Your task to perform on an android device: open app "ColorNote Notepad Notes" Image 0: 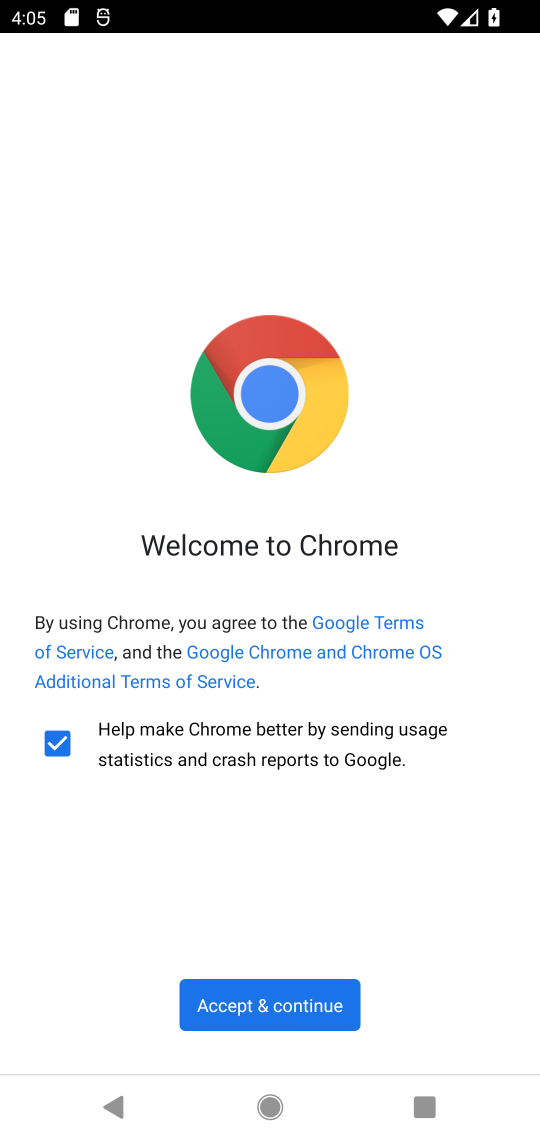
Step 0: press home button
Your task to perform on an android device: open app "ColorNote Notepad Notes" Image 1: 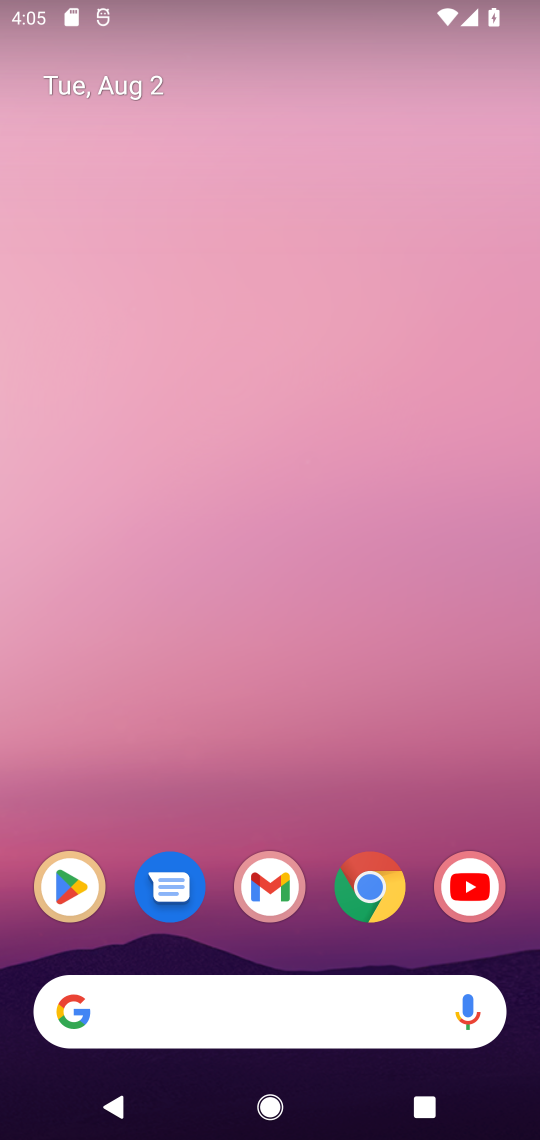
Step 1: click (68, 887)
Your task to perform on an android device: open app "ColorNote Notepad Notes" Image 2: 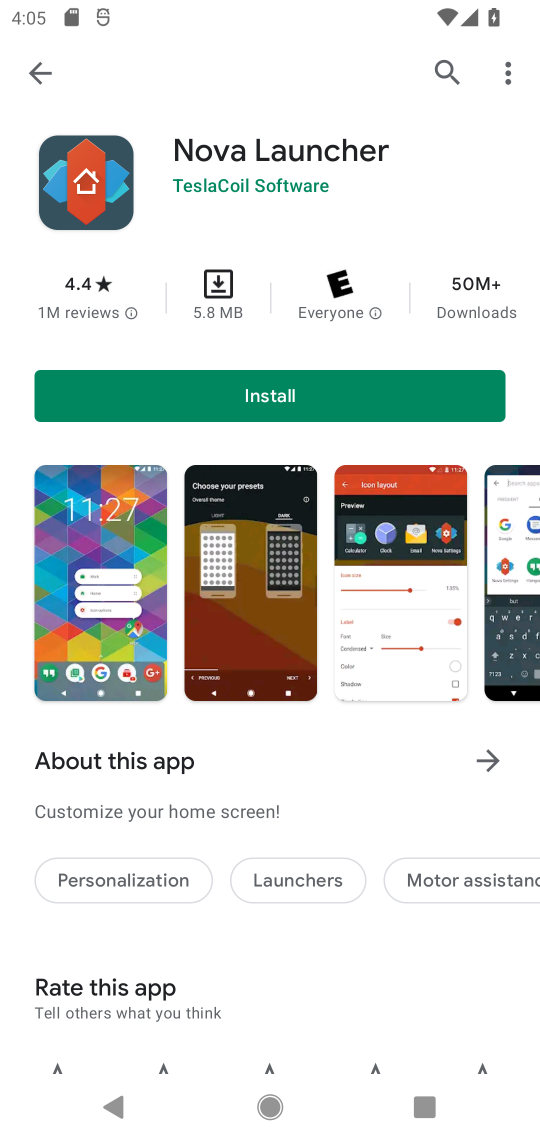
Step 2: click (29, 67)
Your task to perform on an android device: open app "ColorNote Notepad Notes" Image 3: 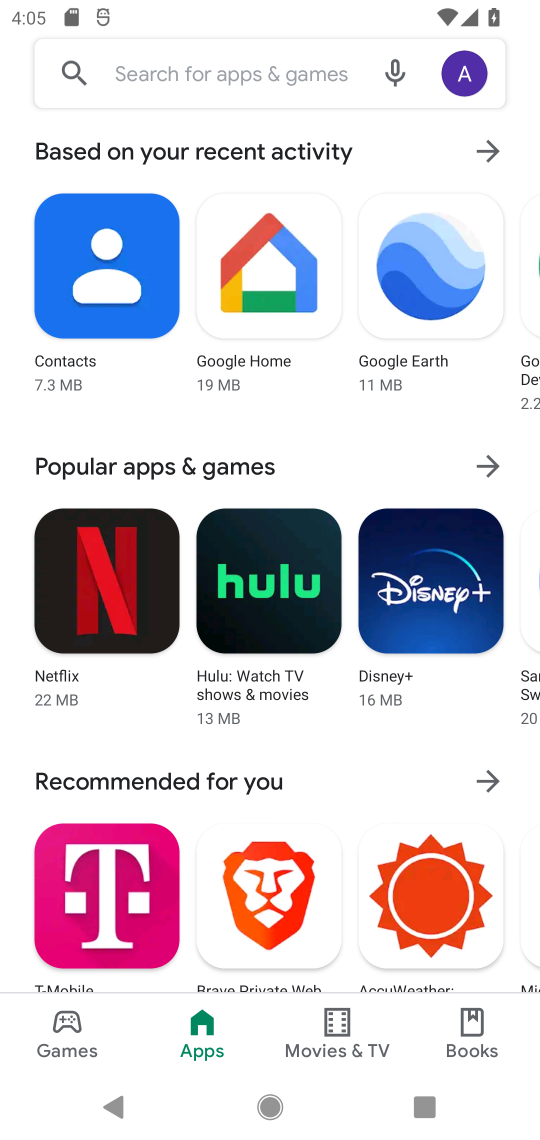
Step 3: click (111, 68)
Your task to perform on an android device: open app "ColorNote Notepad Notes" Image 4: 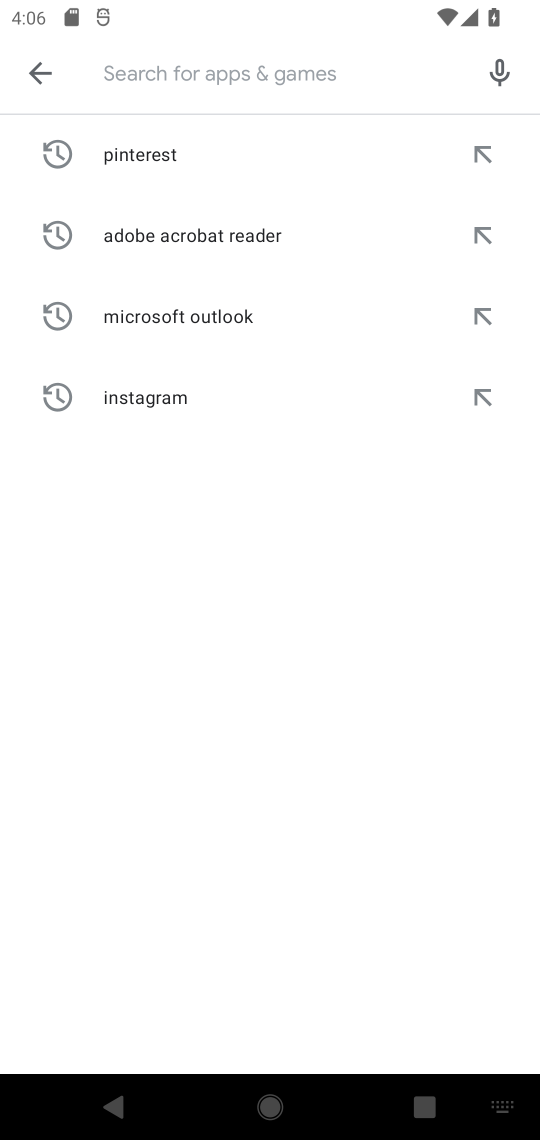
Step 4: type "ColorNote Notepad Notes"
Your task to perform on an android device: open app "ColorNote Notepad Notes" Image 5: 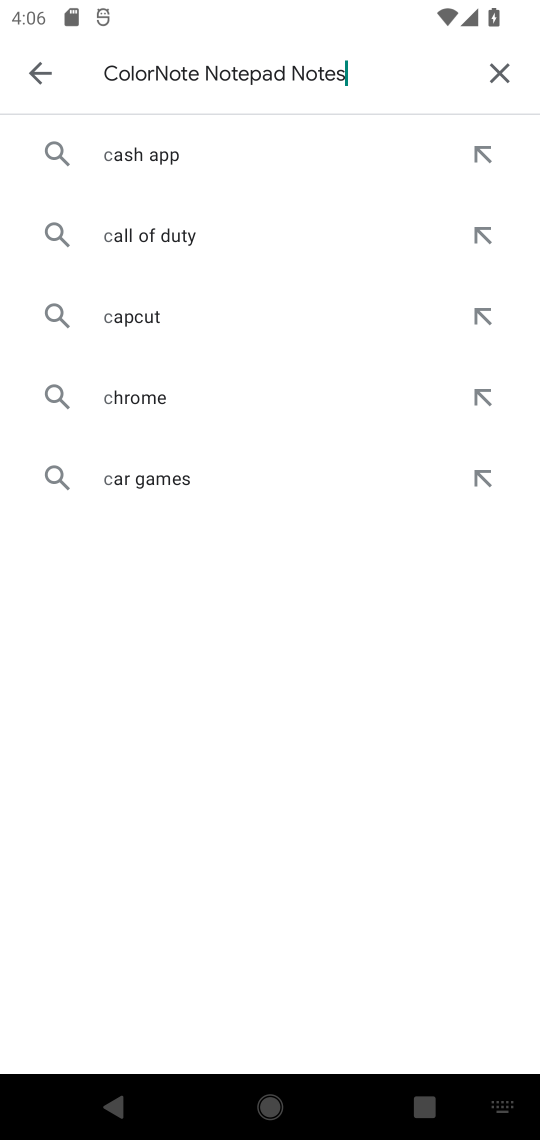
Step 5: type ""
Your task to perform on an android device: open app "ColorNote Notepad Notes" Image 6: 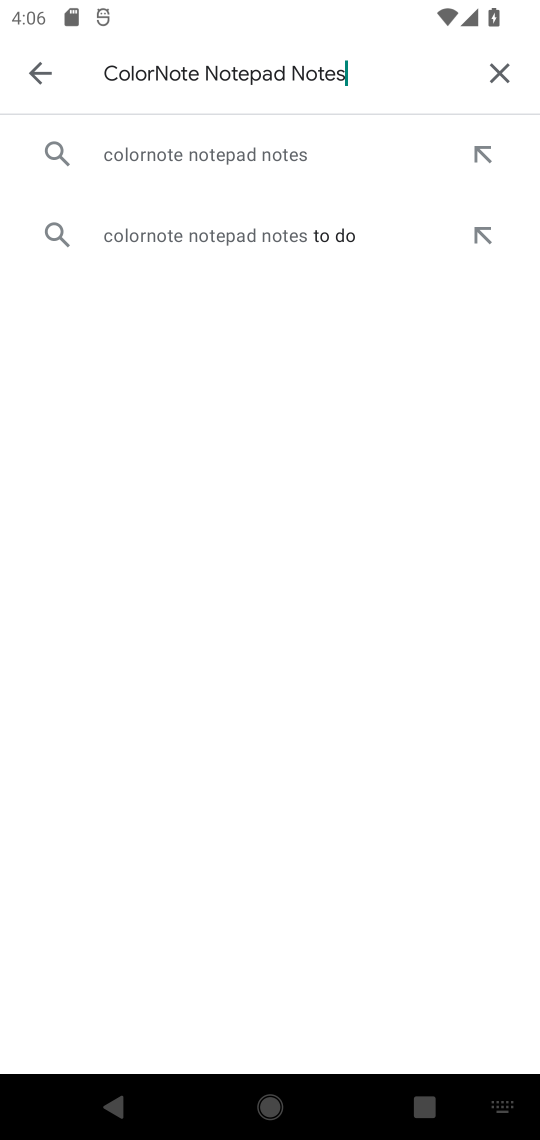
Step 6: type ""
Your task to perform on an android device: open app "ColorNote Notepad Notes" Image 7: 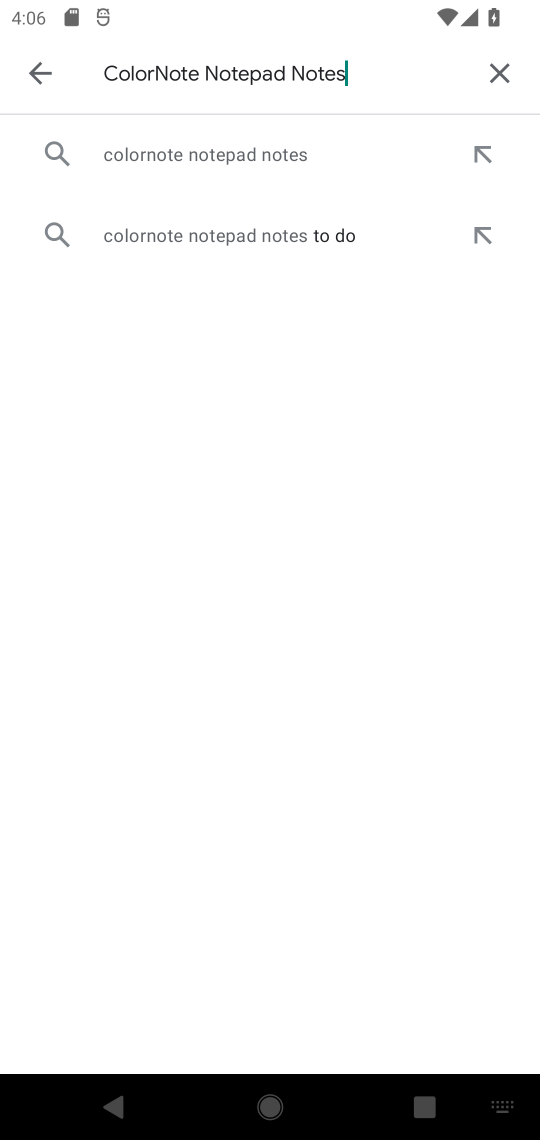
Step 7: type ""
Your task to perform on an android device: open app "ColorNote Notepad Notes" Image 8: 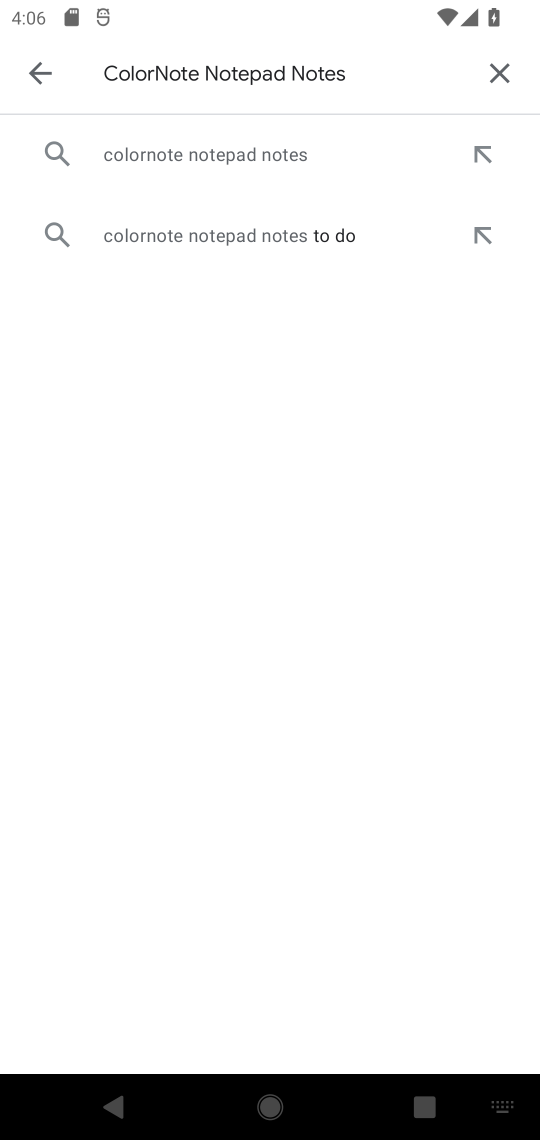
Step 8: click (240, 158)
Your task to perform on an android device: open app "ColorNote Notepad Notes" Image 9: 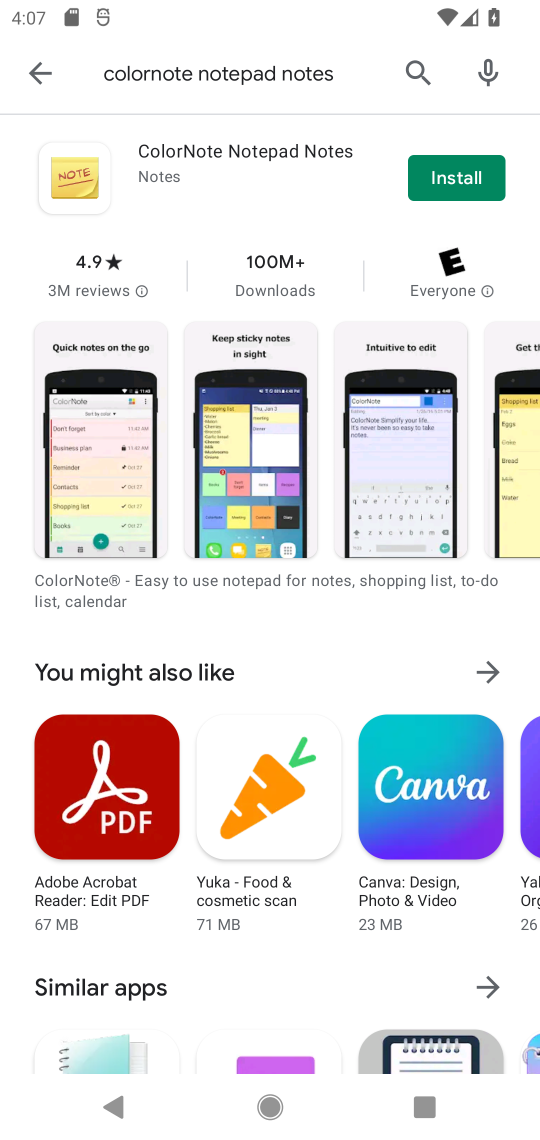
Step 9: task complete